Your task to perform on an android device: Open the Play Movies app and select the watchlist tab. Image 0: 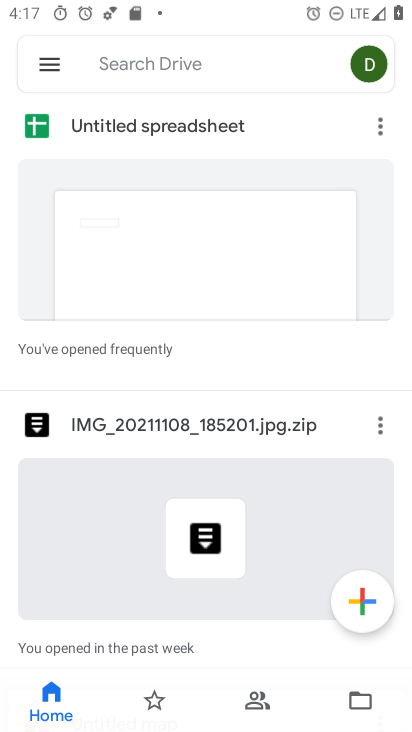
Step 0: press home button
Your task to perform on an android device: Open the Play Movies app and select the watchlist tab. Image 1: 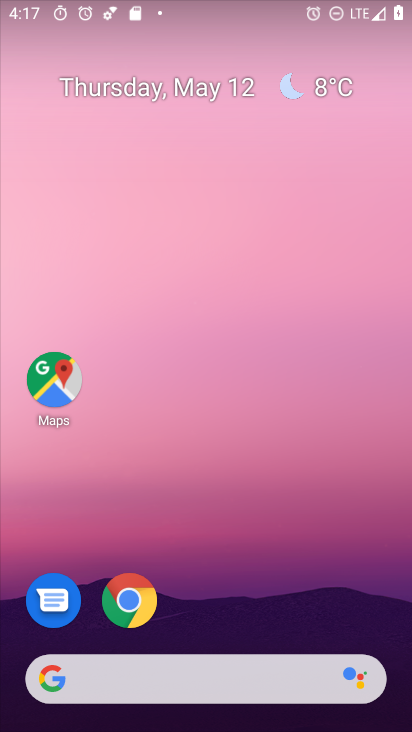
Step 1: drag from (235, 448) to (235, 264)
Your task to perform on an android device: Open the Play Movies app and select the watchlist tab. Image 2: 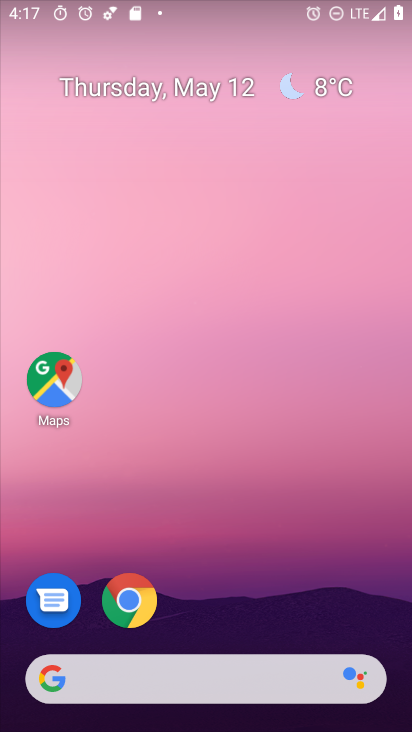
Step 2: drag from (198, 713) to (232, 204)
Your task to perform on an android device: Open the Play Movies app and select the watchlist tab. Image 3: 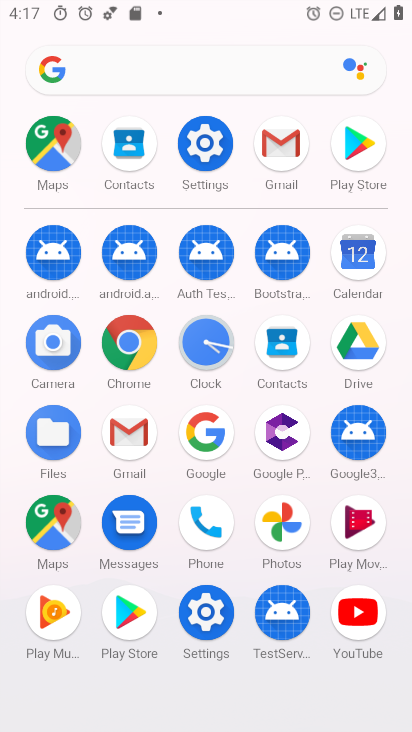
Step 3: click (364, 527)
Your task to perform on an android device: Open the Play Movies app and select the watchlist tab. Image 4: 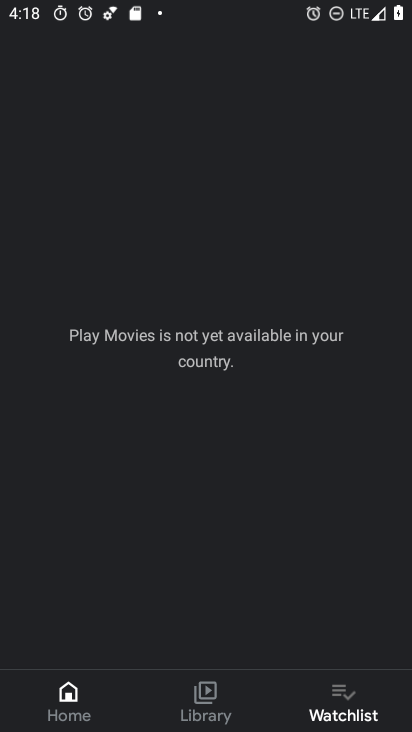
Step 4: task complete